Your task to perform on an android device: Search for vegetarian restaurants on Maps Image 0: 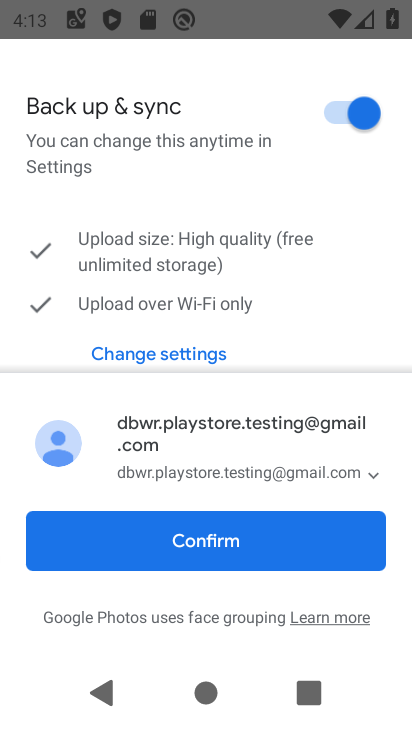
Step 0: press home button
Your task to perform on an android device: Search for vegetarian restaurants on Maps Image 1: 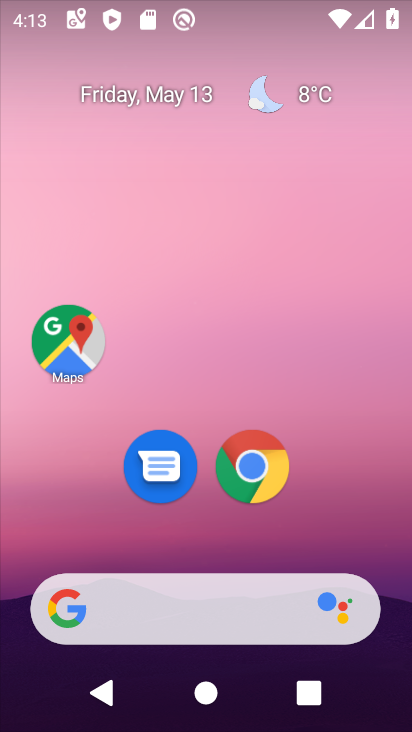
Step 1: click (71, 337)
Your task to perform on an android device: Search for vegetarian restaurants on Maps Image 2: 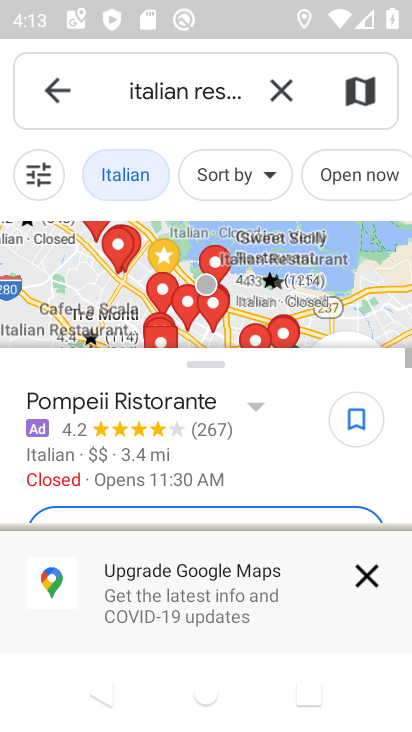
Step 2: click (271, 95)
Your task to perform on an android device: Search for vegetarian restaurants on Maps Image 3: 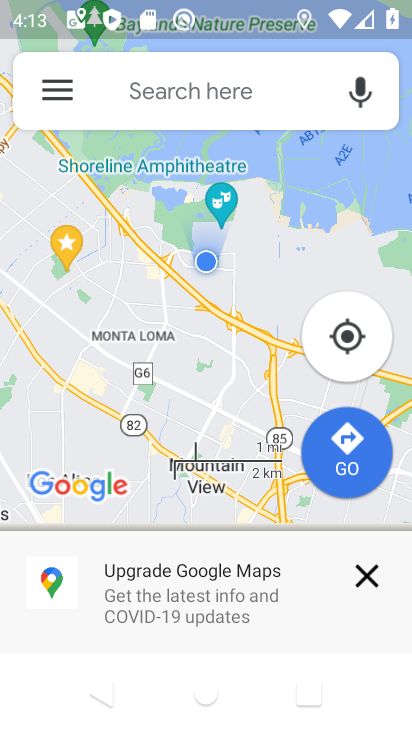
Step 3: click (187, 95)
Your task to perform on an android device: Search for vegetarian restaurants on Maps Image 4: 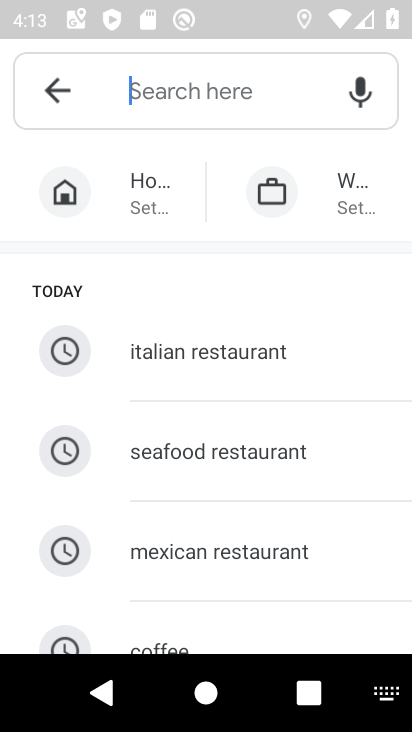
Step 4: type "vegetarian restaurants"
Your task to perform on an android device: Search for vegetarian restaurants on Maps Image 5: 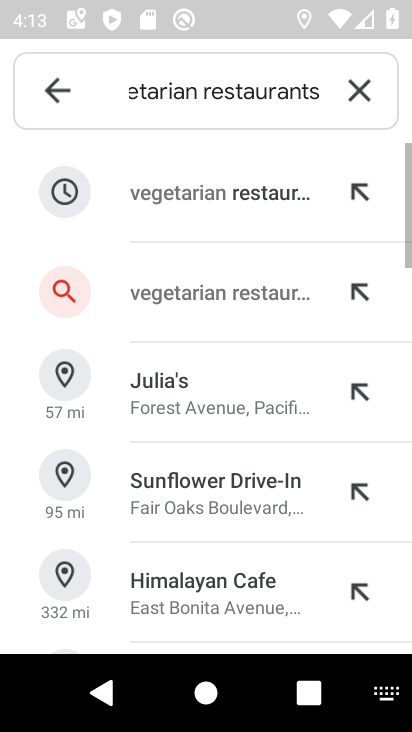
Step 5: click (173, 204)
Your task to perform on an android device: Search for vegetarian restaurants on Maps Image 6: 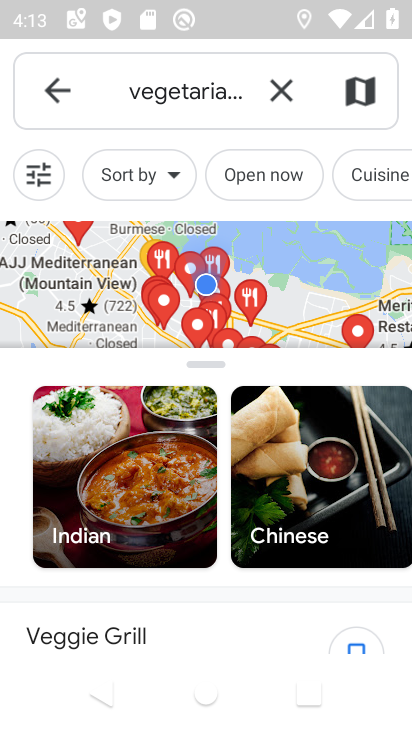
Step 6: task complete